Your task to perform on an android device: Check the weather Image 0: 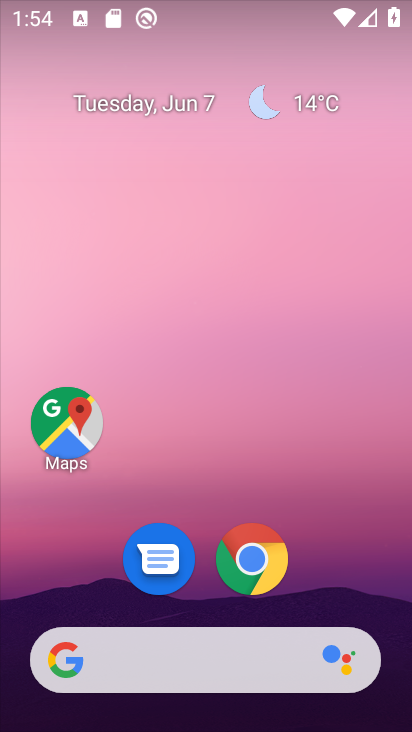
Step 0: click (192, 659)
Your task to perform on an android device: Check the weather Image 1: 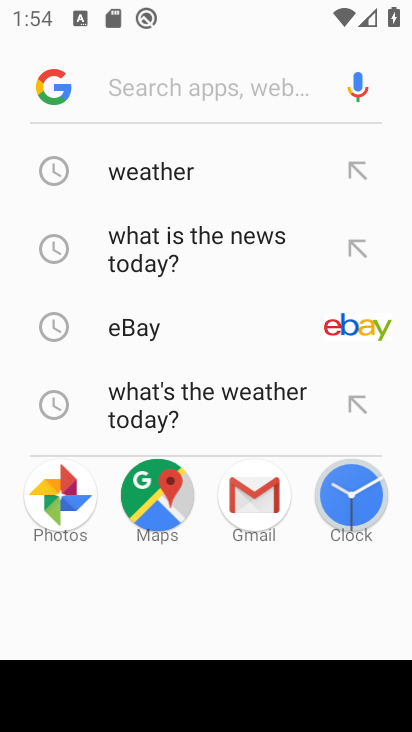
Step 1: click (120, 166)
Your task to perform on an android device: Check the weather Image 2: 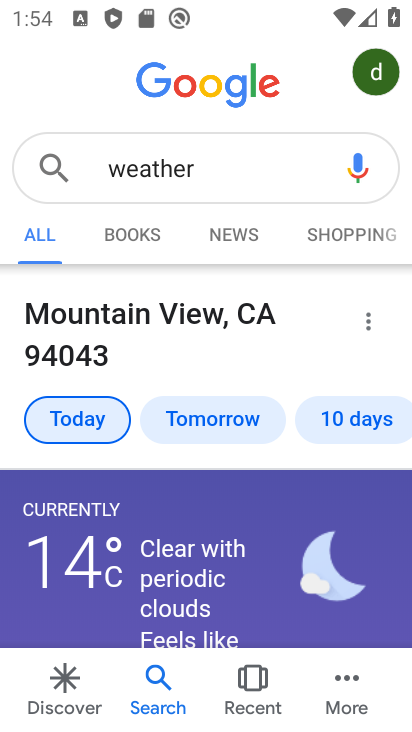
Step 2: task complete